Your task to perform on an android device: Open battery settings Image 0: 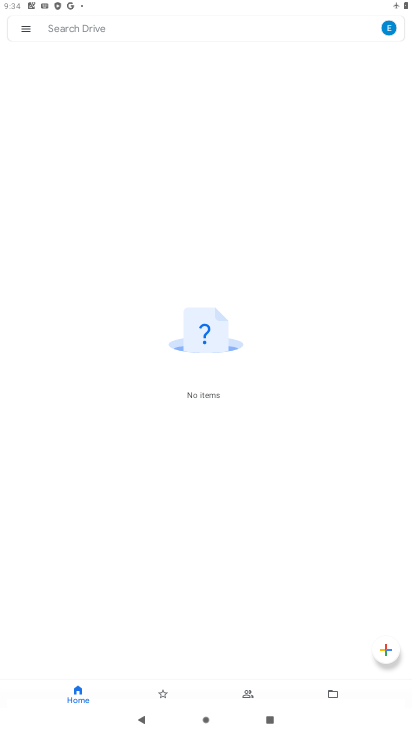
Step 0: press home button
Your task to perform on an android device: Open battery settings Image 1: 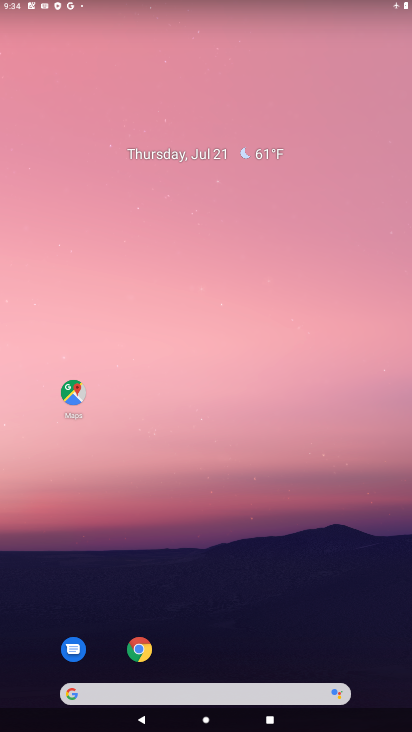
Step 1: drag from (197, 689) to (251, 162)
Your task to perform on an android device: Open battery settings Image 2: 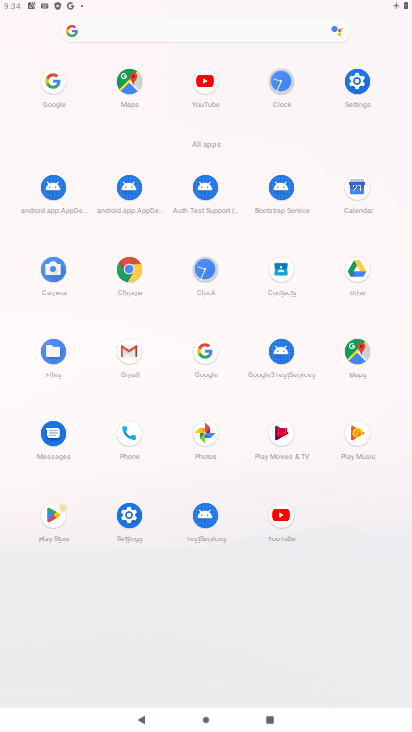
Step 2: click (357, 81)
Your task to perform on an android device: Open battery settings Image 3: 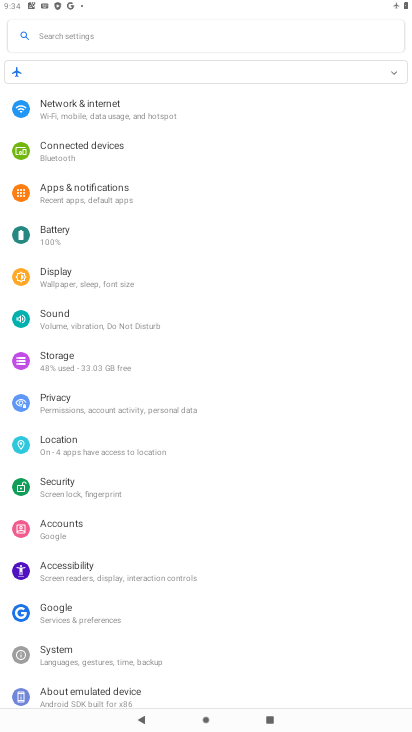
Step 3: click (62, 236)
Your task to perform on an android device: Open battery settings Image 4: 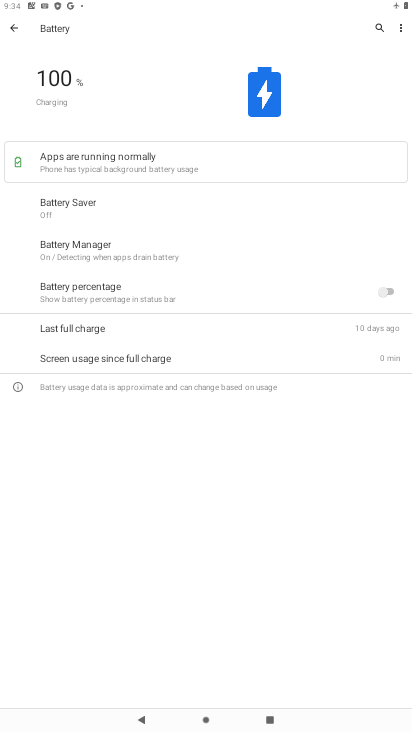
Step 4: task complete